Your task to perform on an android device: Go to display settings Image 0: 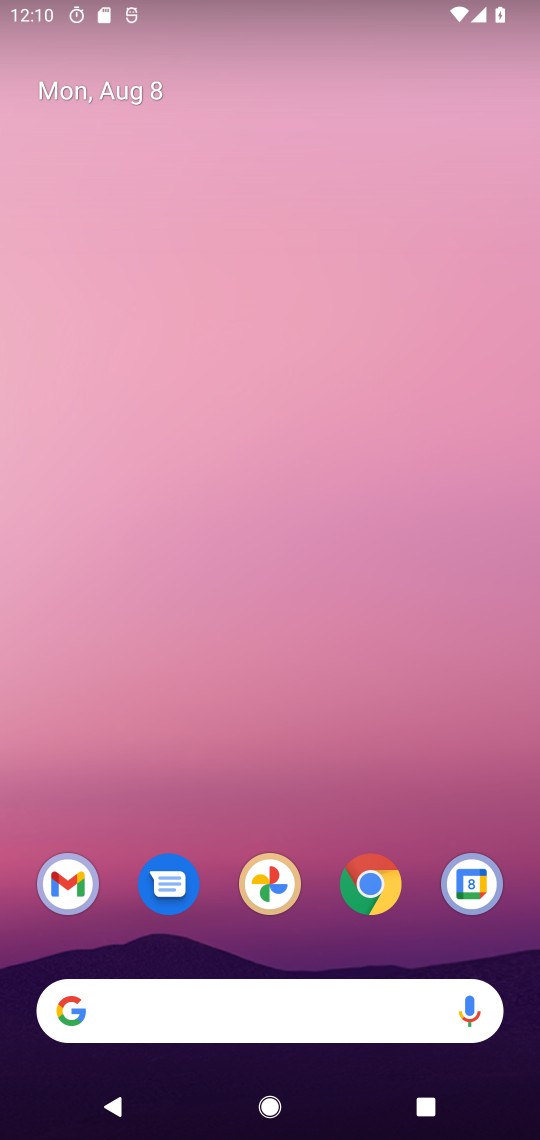
Step 0: drag from (255, 887) to (334, 17)
Your task to perform on an android device: Go to display settings Image 1: 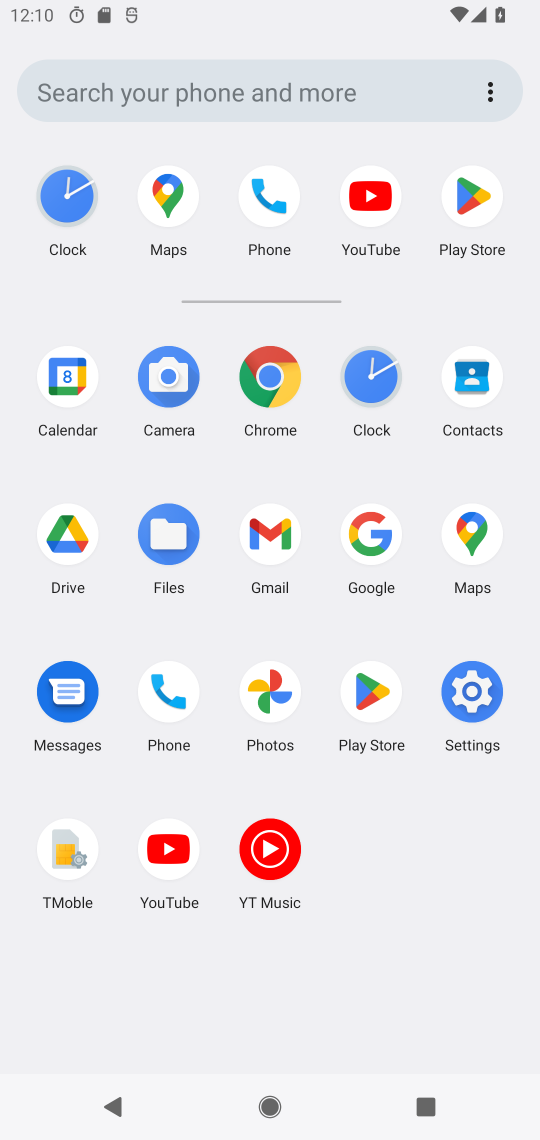
Step 1: click (477, 705)
Your task to perform on an android device: Go to display settings Image 2: 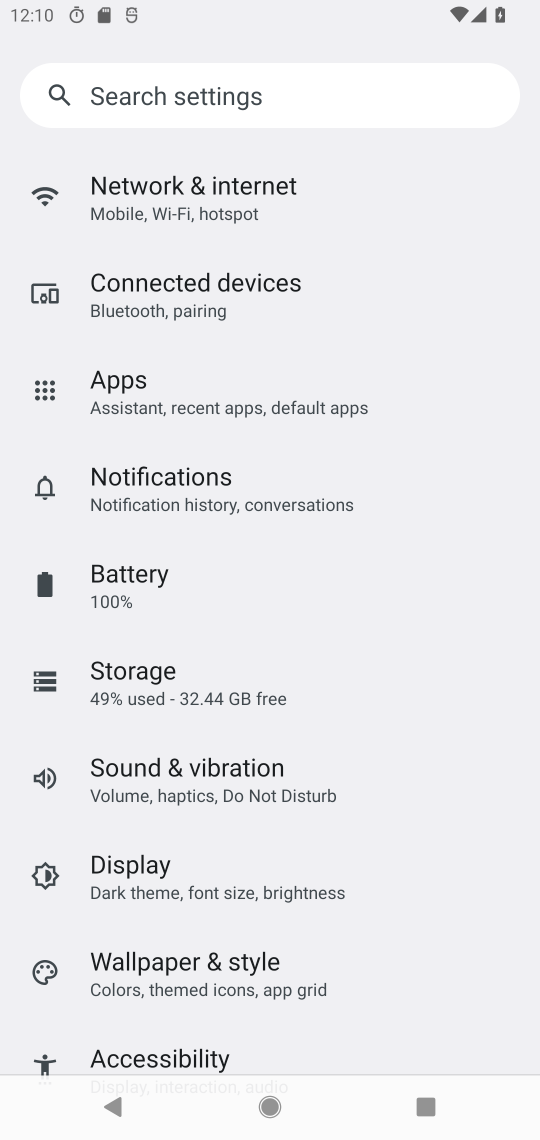
Step 2: click (162, 867)
Your task to perform on an android device: Go to display settings Image 3: 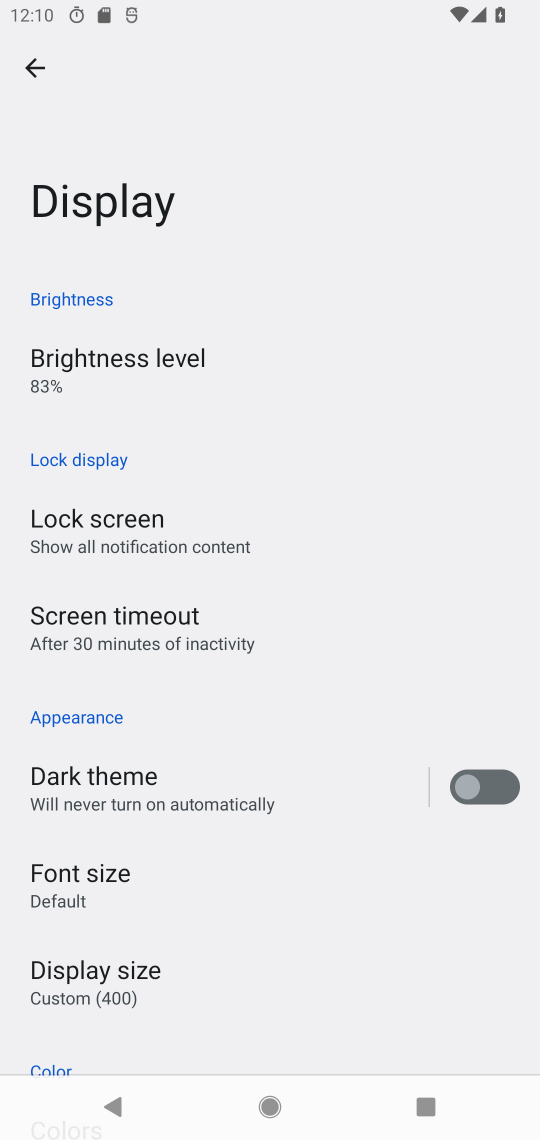
Step 3: task complete